Your task to perform on an android device: turn off priority inbox in the gmail app Image 0: 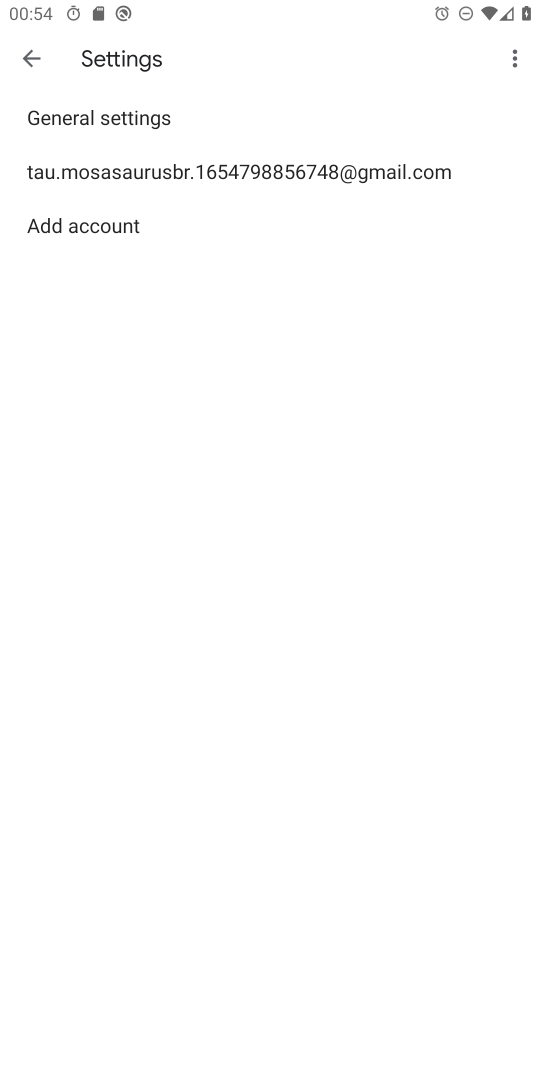
Step 0: click (301, 168)
Your task to perform on an android device: turn off priority inbox in the gmail app Image 1: 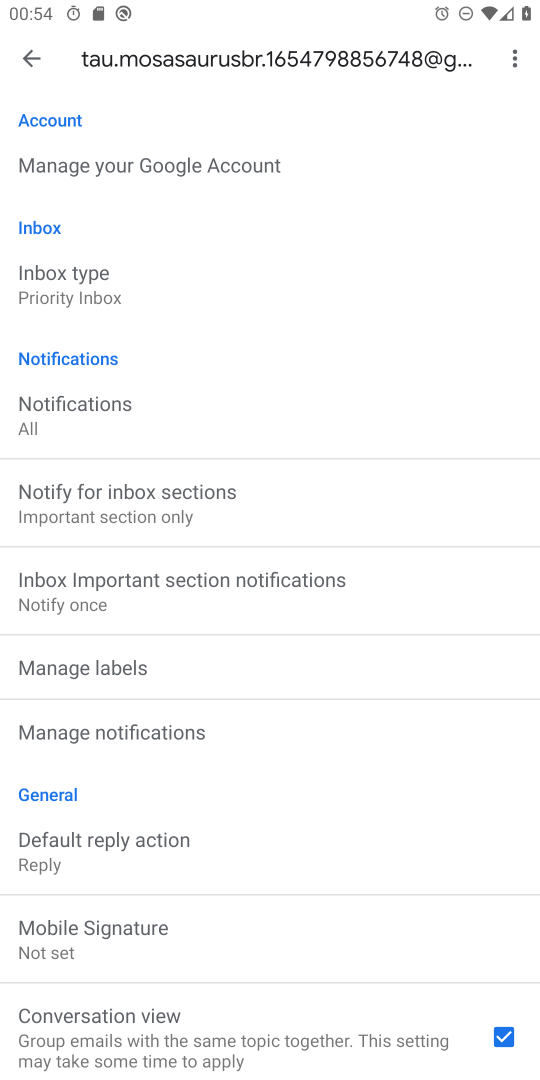
Step 1: click (72, 302)
Your task to perform on an android device: turn off priority inbox in the gmail app Image 2: 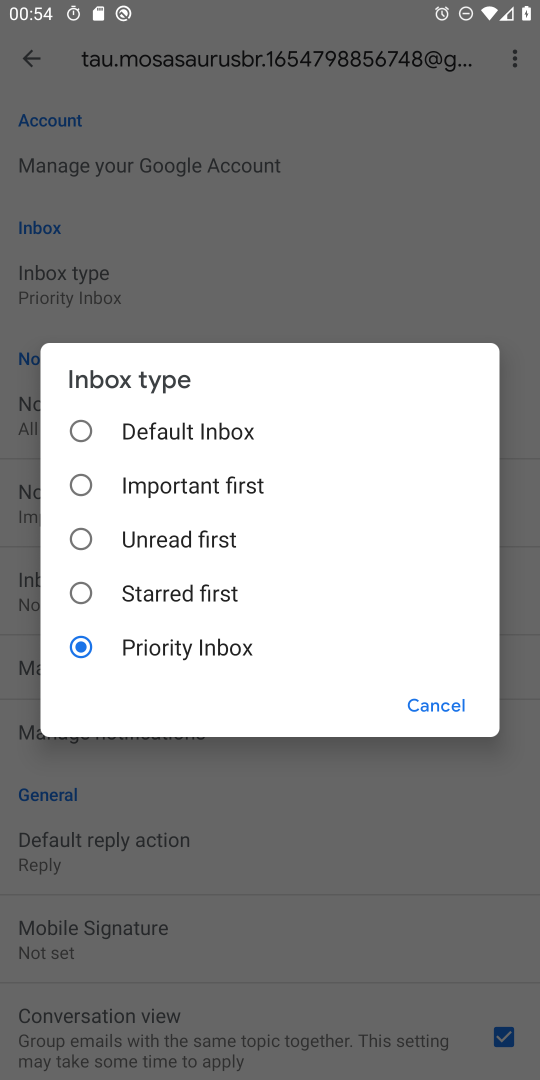
Step 2: click (241, 493)
Your task to perform on an android device: turn off priority inbox in the gmail app Image 3: 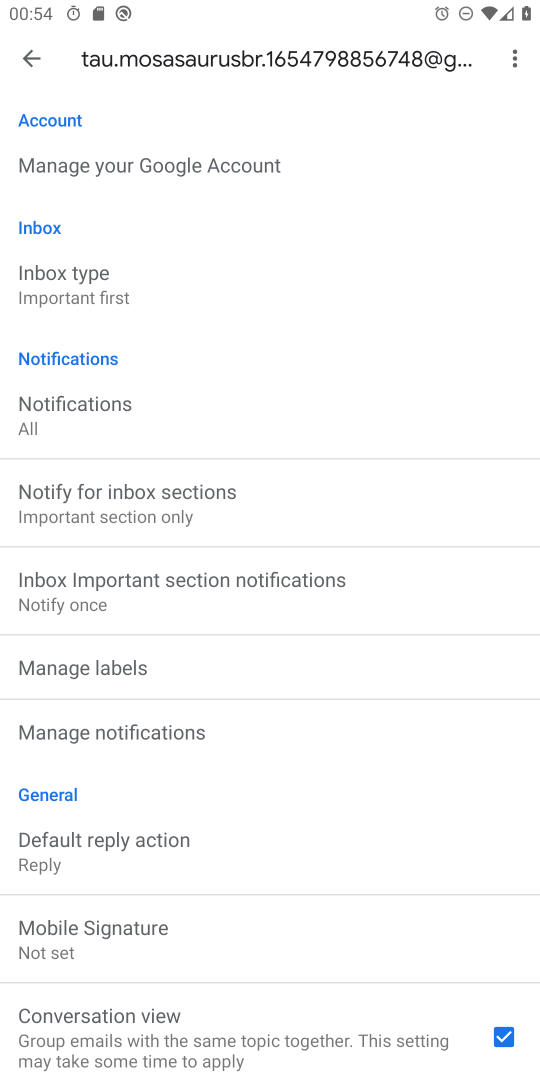
Step 3: task complete